Your task to perform on an android device: toggle data saver in the chrome app Image 0: 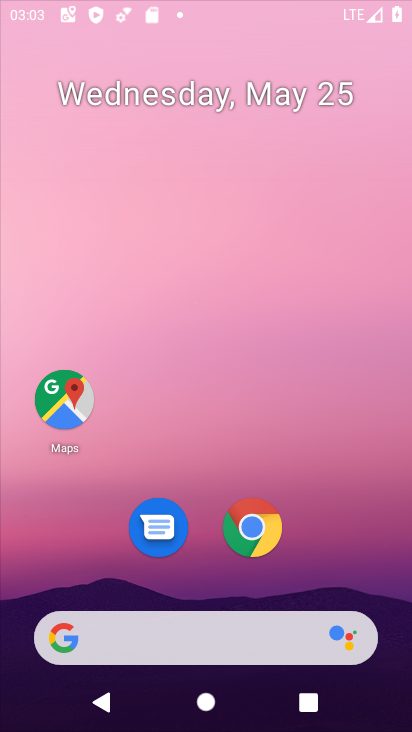
Step 0: click (265, 77)
Your task to perform on an android device: toggle data saver in the chrome app Image 1: 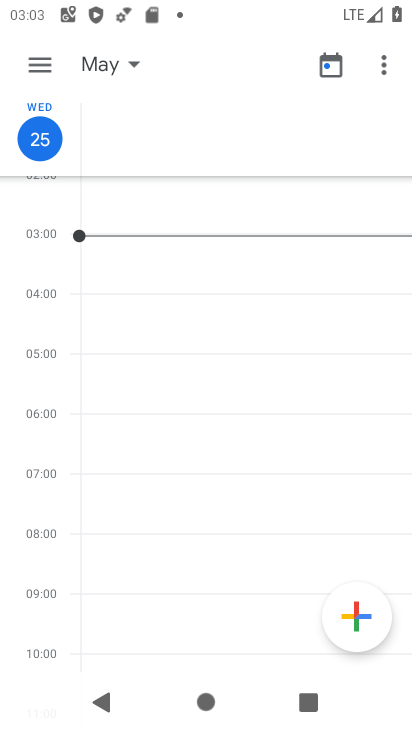
Step 1: press home button
Your task to perform on an android device: toggle data saver in the chrome app Image 2: 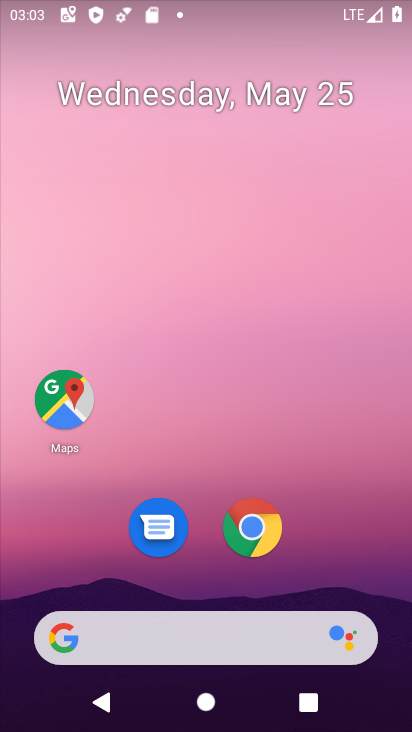
Step 2: click (263, 520)
Your task to perform on an android device: toggle data saver in the chrome app Image 3: 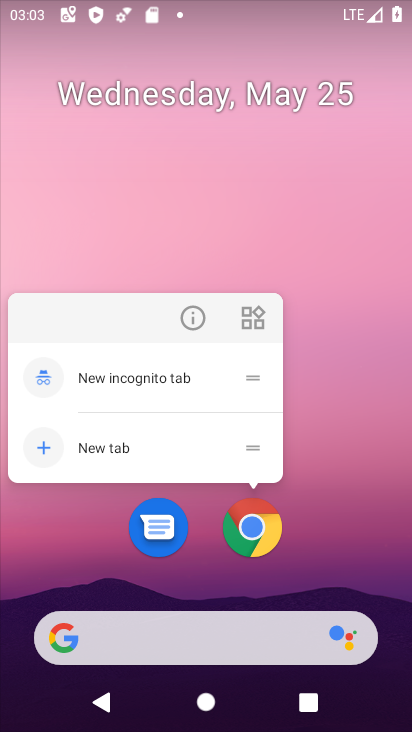
Step 3: click (174, 330)
Your task to perform on an android device: toggle data saver in the chrome app Image 4: 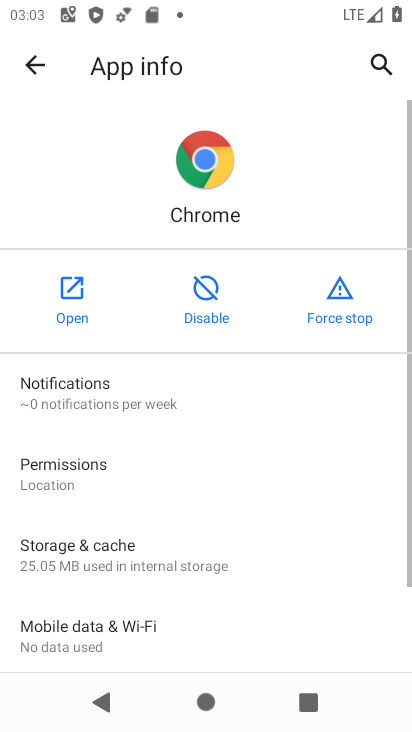
Step 4: click (69, 312)
Your task to perform on an android device: toggle data saver in the chrome app Image 5: 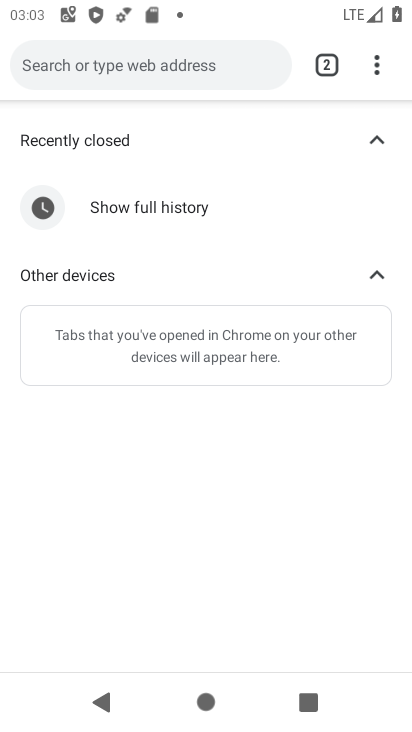
Step 5: click (380, 69)
Your task to perform on an android device: toggle data saver in the chrome app Image 6: 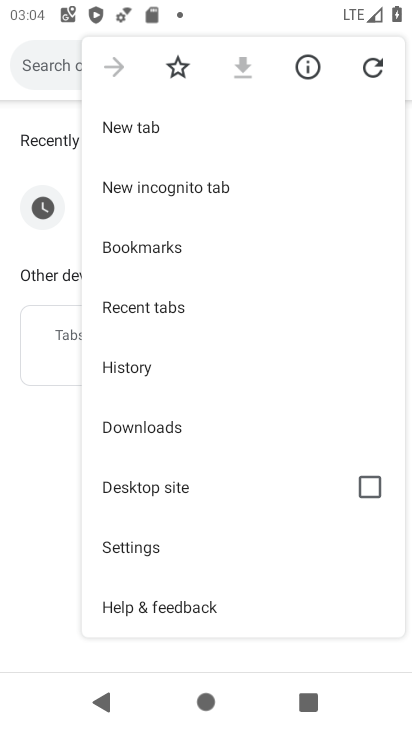
Step 6: drag from (245, 568) to (329, 4)
Your task to perform on an android device: toggle data saver in the chrome app Image 7: 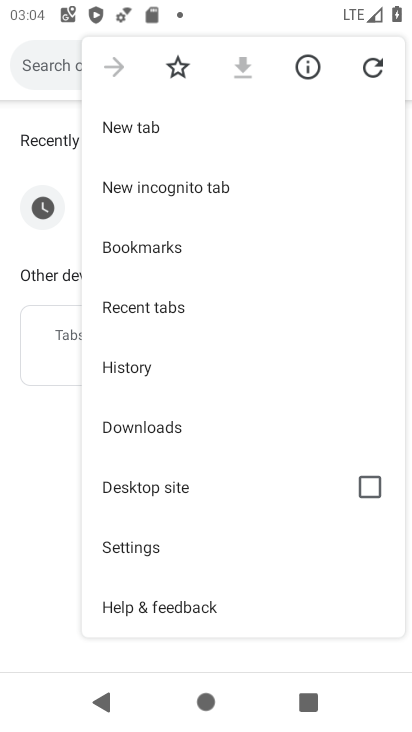
Step 7: click (153, 544)
Your task to perform on an android device: toggle data saver in the chrome app Image 8: 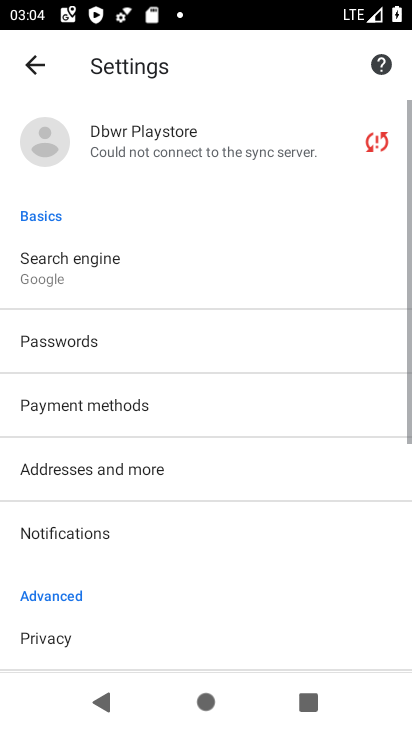
Step 8: drag from (233, 584) to (240, 256)
Your task to perform on an android device: toggle data saver in the chrome app Image 9: 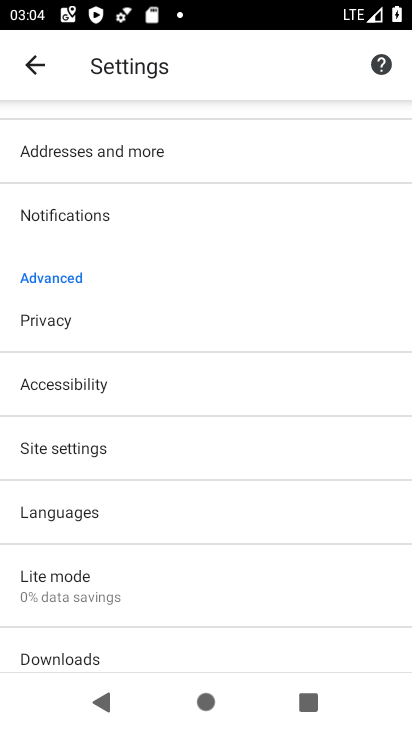
Step 9: click (115, 578)
Your task to perform on an android device: toggle data saver in the chrome app Image 10: 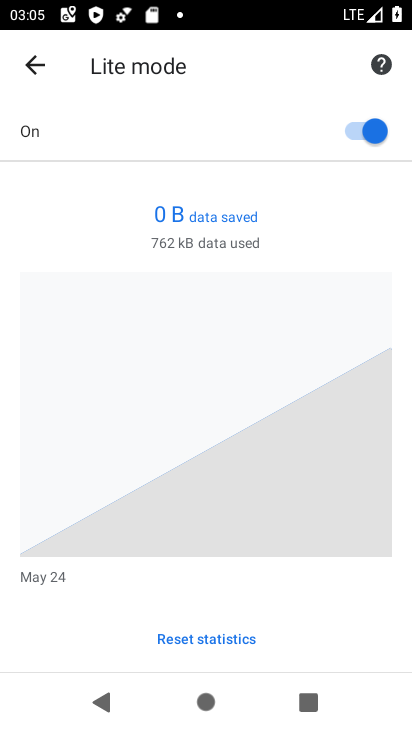
Step 10: task complete